Your task to perform on an android device: Open Amazon Image 0: 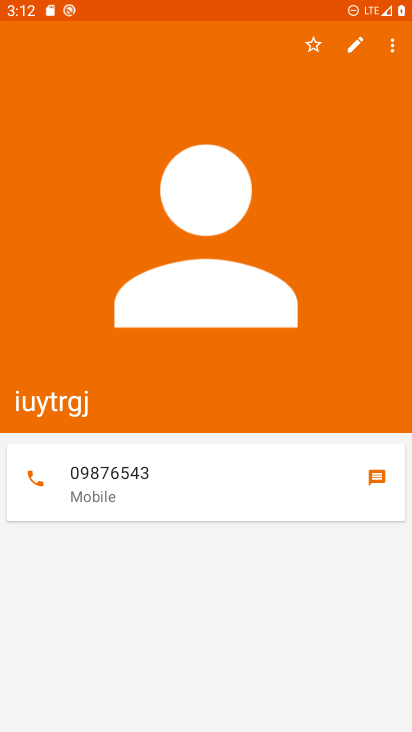
Step 0: press home button
Your task to perform on an android device: Open Amazon Image 1: 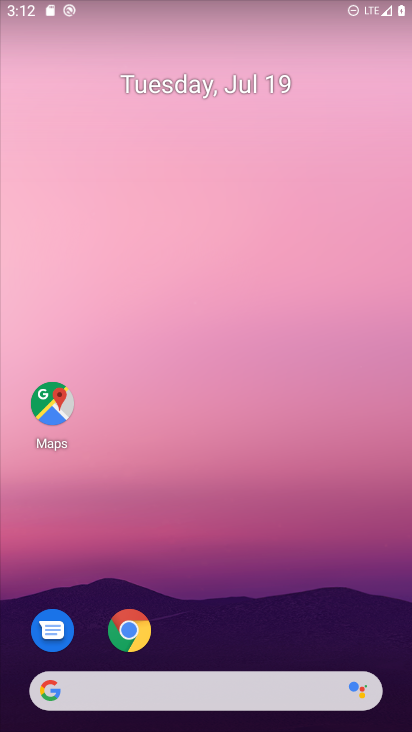
Step 1: click (136, 634)
Your task to perform on an android device: Open Amazon Image 2: 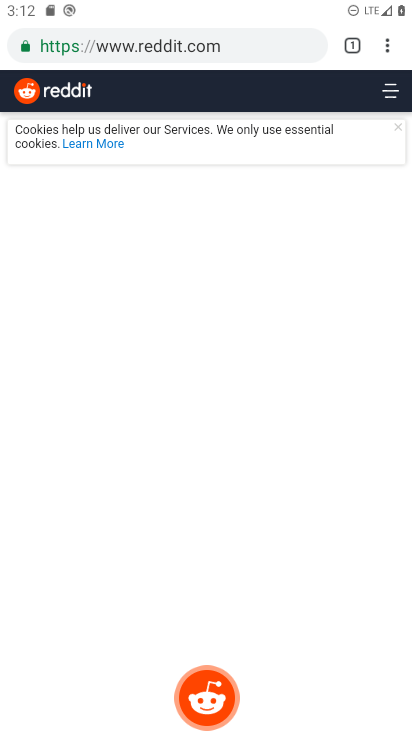
Step 2: click (247, 45)
Your task to perform on an android device: Open Amazon Image 3: 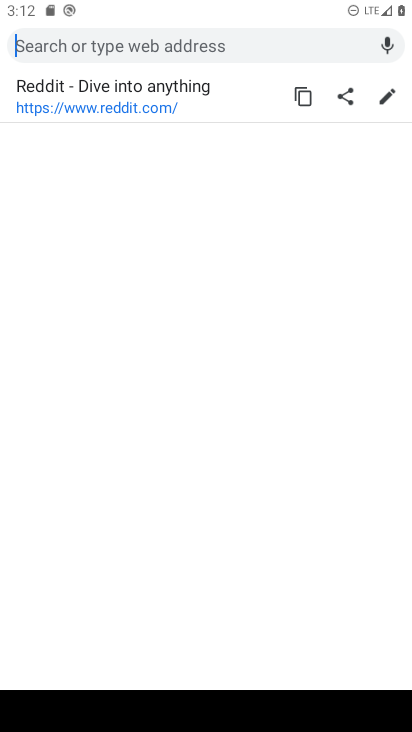
Step 3: type "amazon"
Your task to perform on an android device: Open Amazon Image 4: 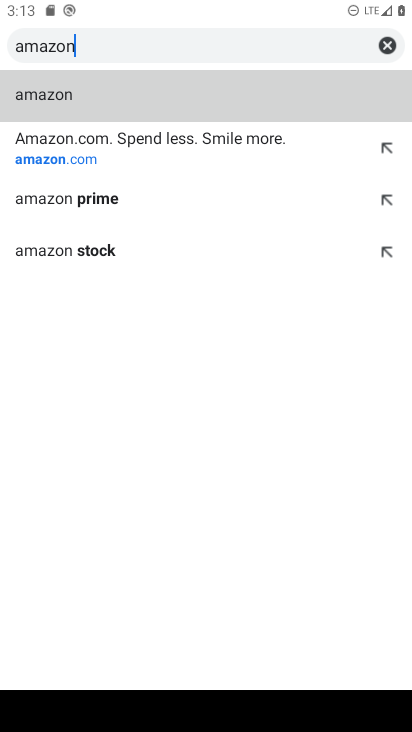
Step 4: click (80, 96)
Your task to perform on an android device: Open Amazon Image 5: 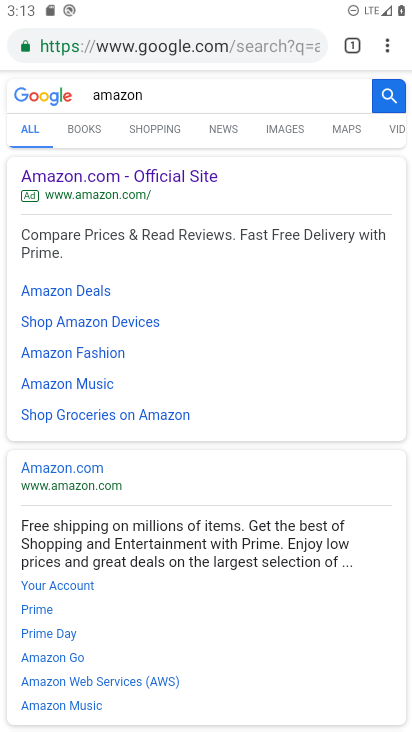
Step 5: click (76, 176)
Your task to perform on an android device: Open Amazon Image 6: 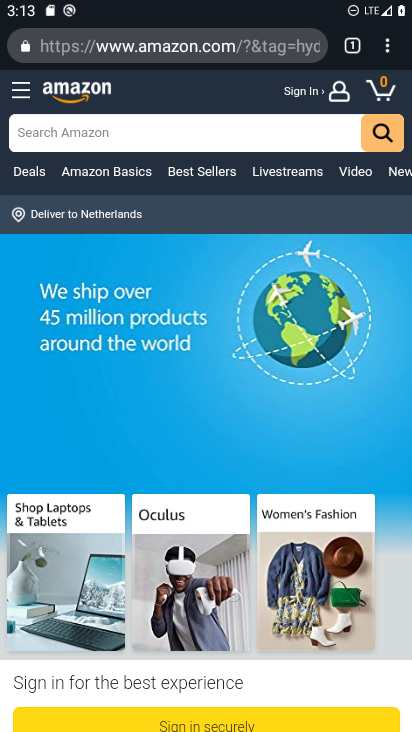
Step 6: task complete